Your task to perform on an android device: remove spam from my inbox in the gmail app Image 0: 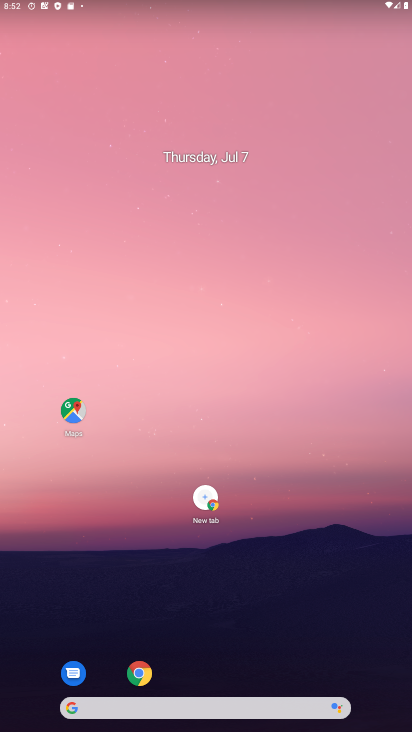
Step 0: press home button
Your task to perform on an android device: remove spam from my inbox in the gmail app Image 1: 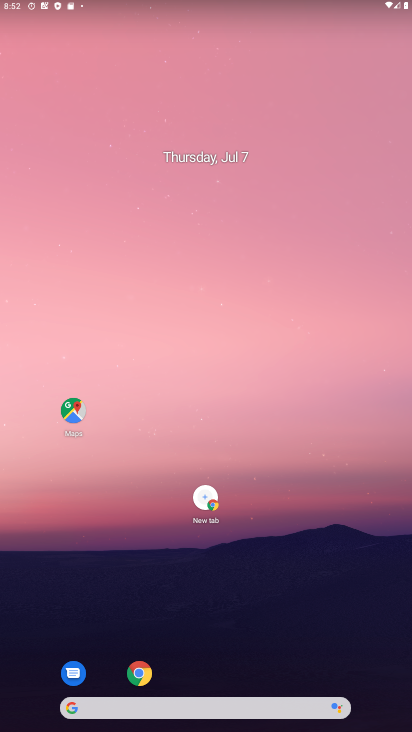
Step 1: drag from (278, 650) to (301, 181)
Your task to perform on an android device: remove spam from my inbox in the gmail app Image 2: 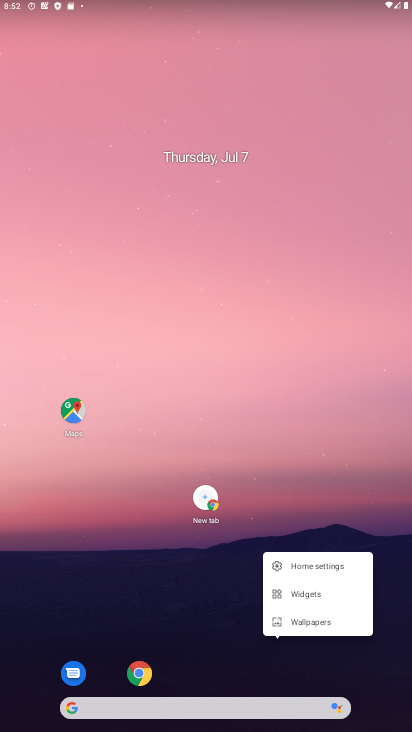
Step 2: drag from (250, 621) to (311, 66)
Your task to perform on an android device: remove spam from my inbox in the gmail app Image 3: 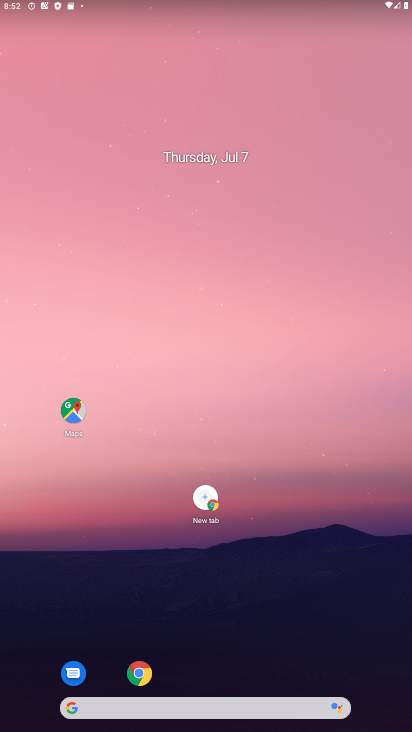
Step 3: drag from (258, 637) to (242, 50)
Your task to perform on an android device: remove spam from my inbox in the gmail app Image 4: 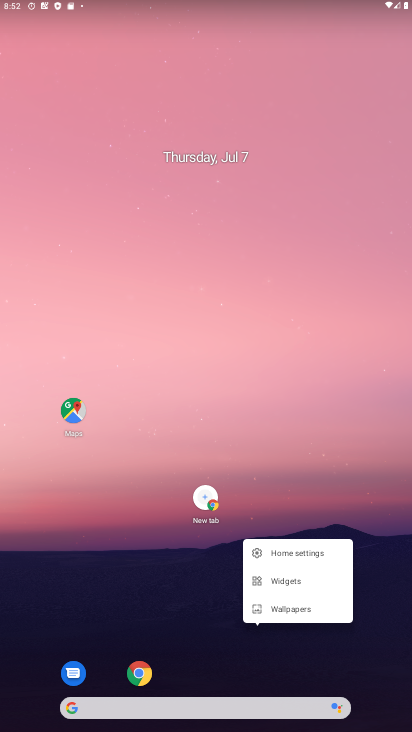
Step 4: drag from (214, 660) to (180, 12)
Your task to perform on an android device: remove spam from my inbox in the gmail app Image 5: 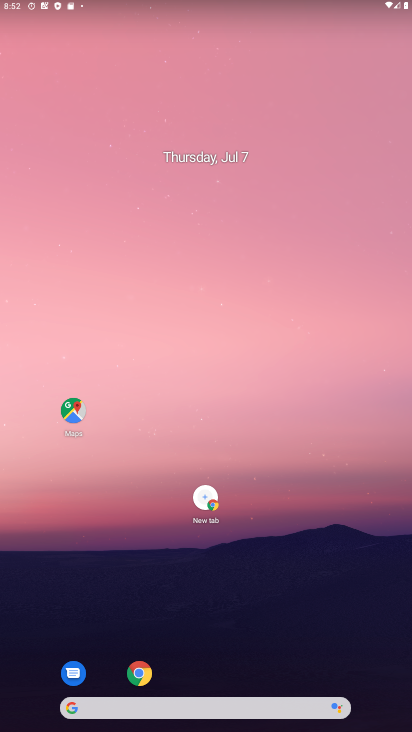
Step 5: drag from (289, 646) to (194, 5)
Your task to perform on an android device: remove spam from my inbox in the gmail app Image 6: 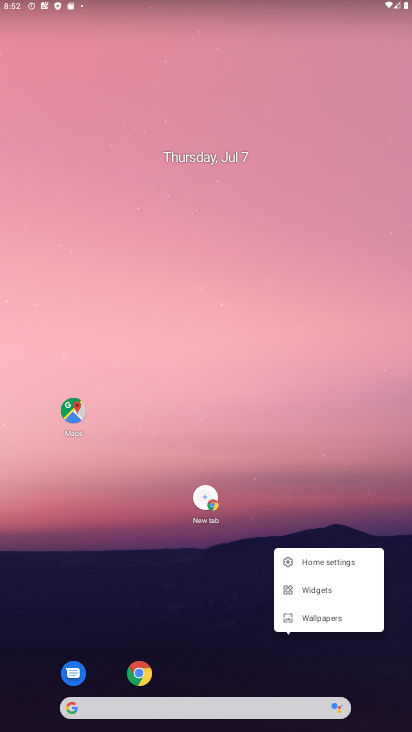
Step 6: click (240, 644)
Your task to perform on an android device: remove spam from my inbox in the gmail app Image 7: 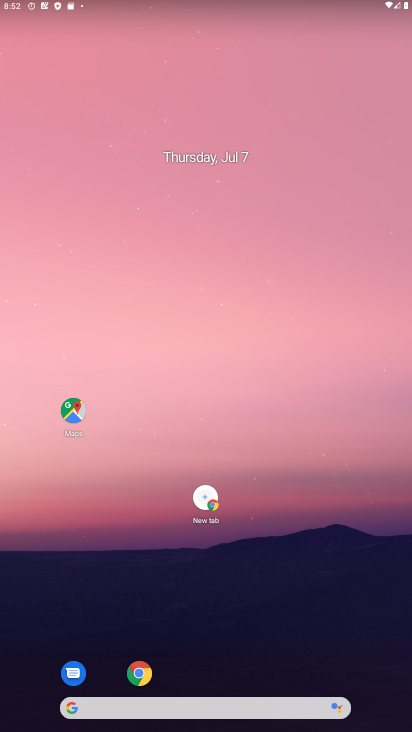
Step 7: drag from (263, 651) to (175, 24)
Your task to perform on an android device: remove spam from my inbox in the gmail app Image 8: 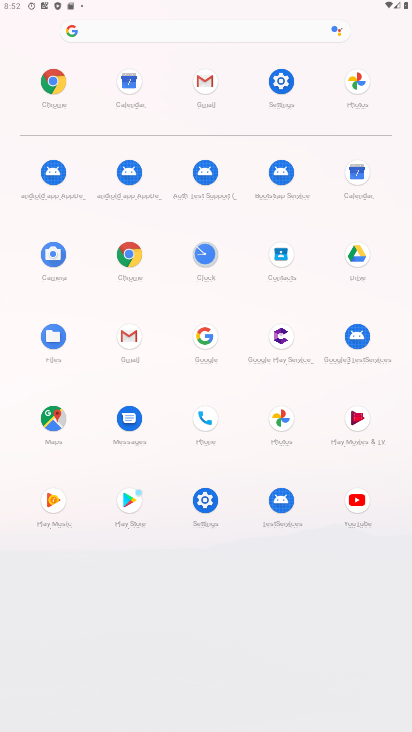
Step 8: click (208, 82)
Your task to perform on an android device: remove spam from my inbox in the gmail app Image 9: 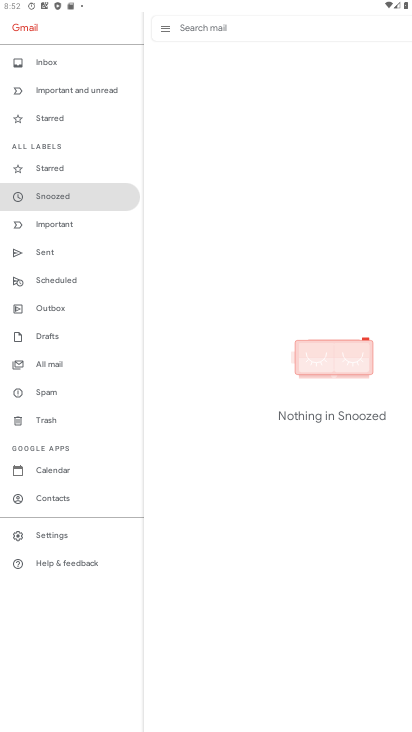
Step 9: click (43, 391)
Your task to perform on an android device: remove spam from my inbox in the gmail app Image 10: 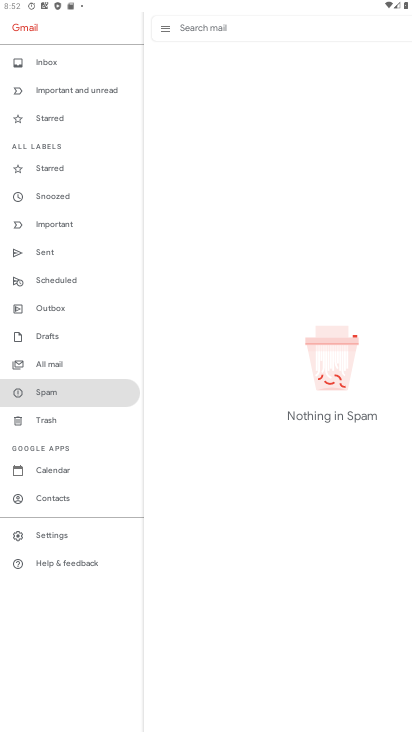
Step 10: task complete